Your task to perform on an android device: Find coffee shops on Maps Image 0: 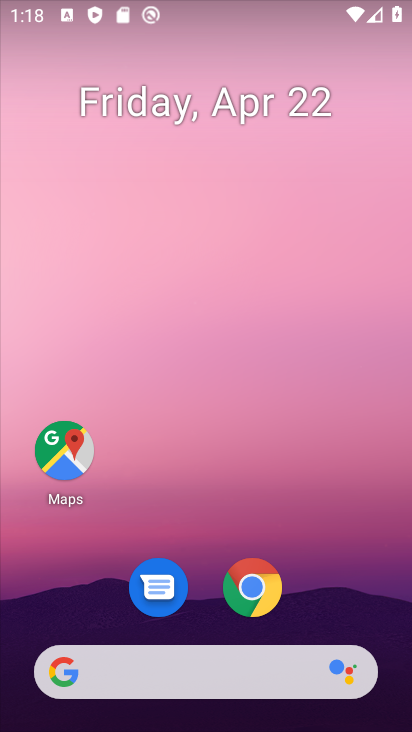
Step 0: click (65, 454)
Your task to perform on an android device: Find coffee shops on Maps Image 1: 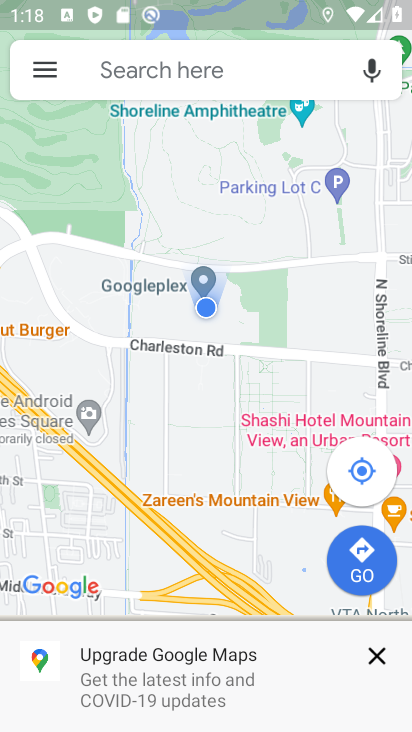
Step 1: click (152, 68)
Your task to perform on an android device: Find coffee shops on Maps Image 2: 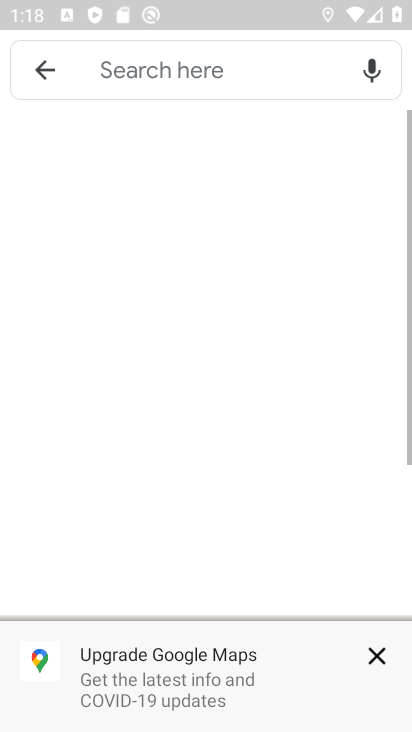
Step 2: click (139, 73)
Your task to perform on an android device: Find coffee shops on Maps Image 3: 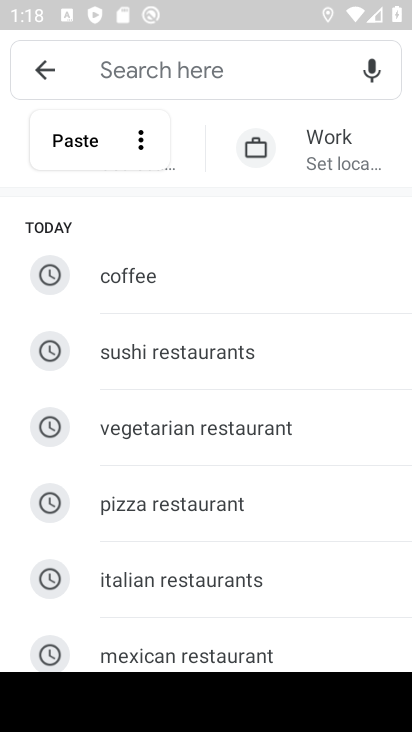
Step 3: type "coffee shops"
Your task to perform on an android device: Find coffee shops on Maps Image 4: 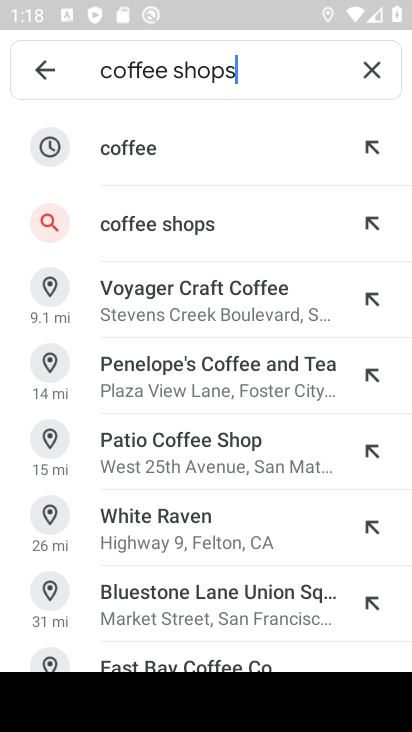
Step 4: click (166, 232)
Your task to perform on an android device: Find coffee shops on Maps Image 5: 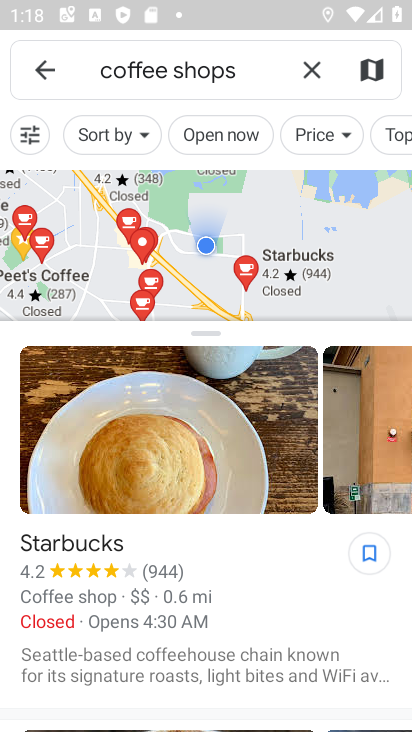
Step 5: task complete